Your task to perform on an android device: search for starred emails in the gmail app Image 0: 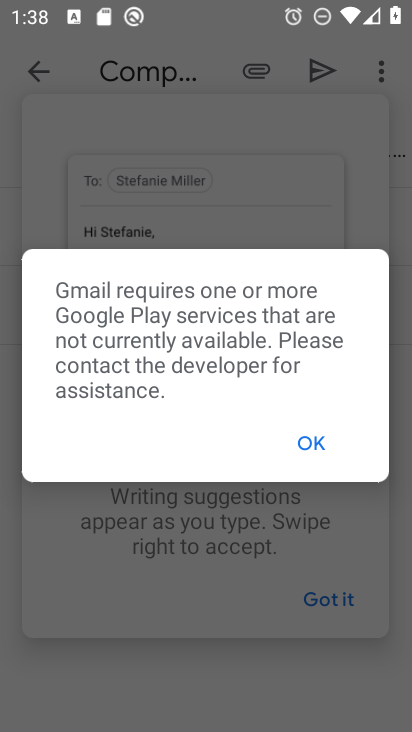
Step 0: press home button
Your task to perform on an android device: search for starred emails in the gmail app Image 1: 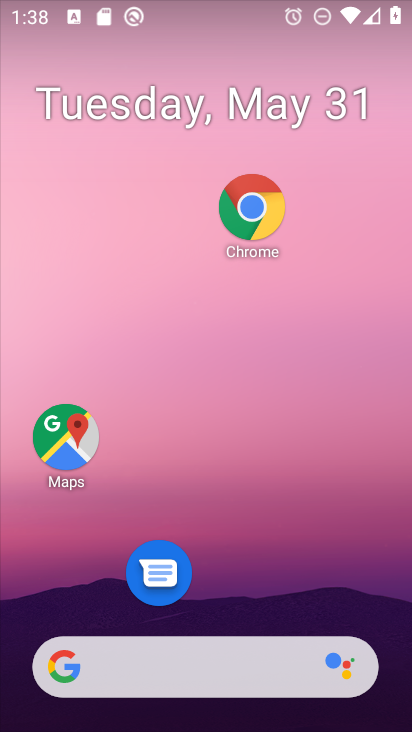
Step 1: drag from (249, 603) to (279, 134)
Your task to perform on an android device: search for starred emails in the gmail app Image 2: 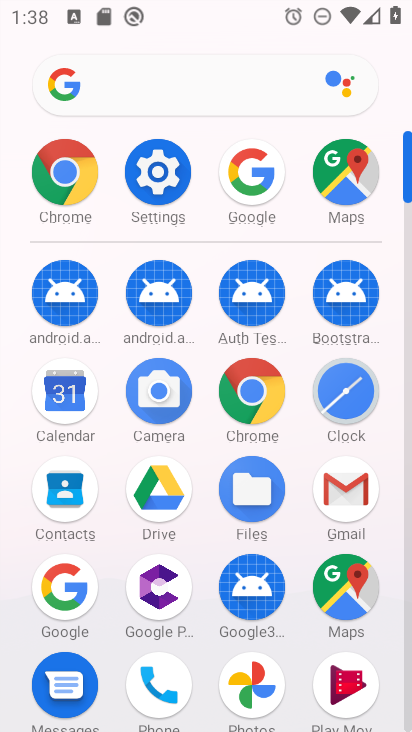
Step 2: click (348, 490)
Your task to perform on an android device: search for starred emails in the gmail app Image 3: 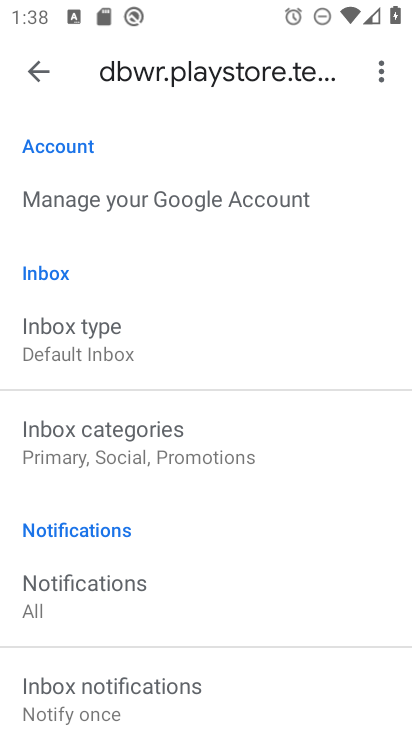
Step 3: click (44, 69)
Your task to perform on an android device: search for starred emails in the gmail app Image 4: 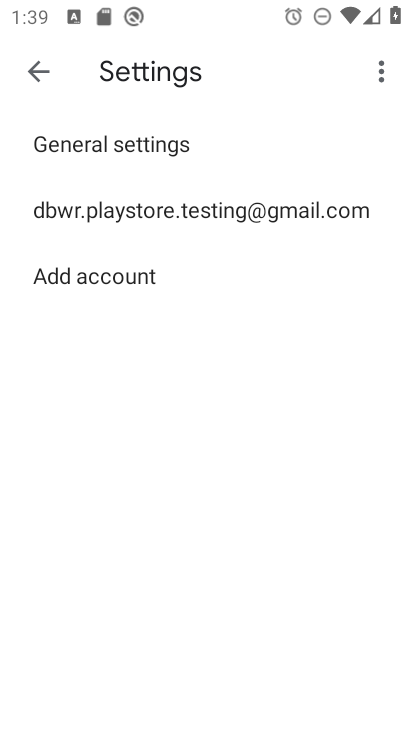
Step 4: click (44, 69)
Your task to perform on an android device: search for starred emails in the gmail app Image 5: 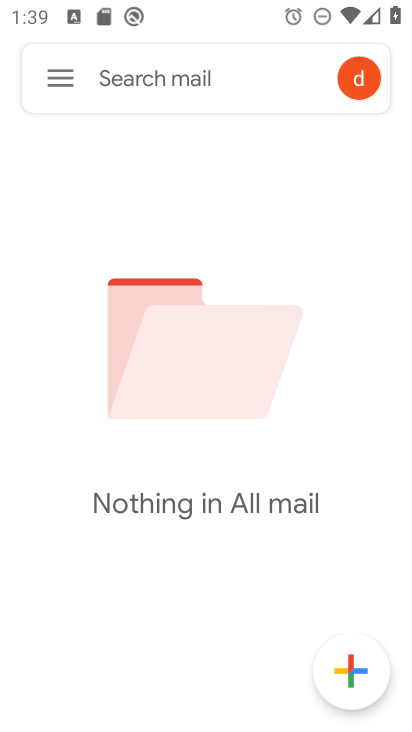
Step 5: click (53, 77)
Your task to perform on an android device: search for starred emails in the gmail app Image 6: 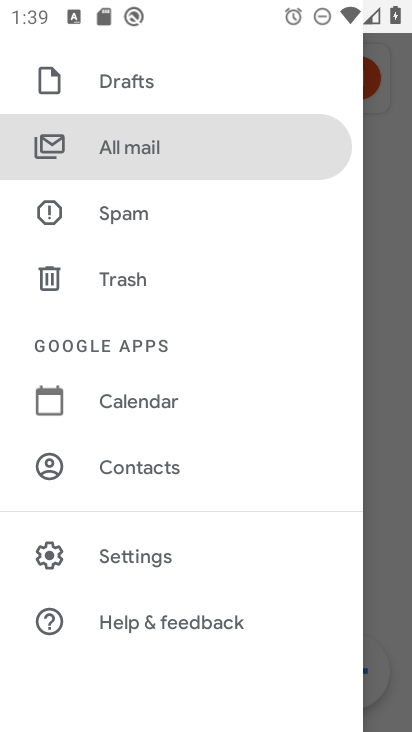
Step 6: drag from (178, 289) to (156, 576)
Your task to perform on an android device: search for starred emails in the gmail app Image 7: 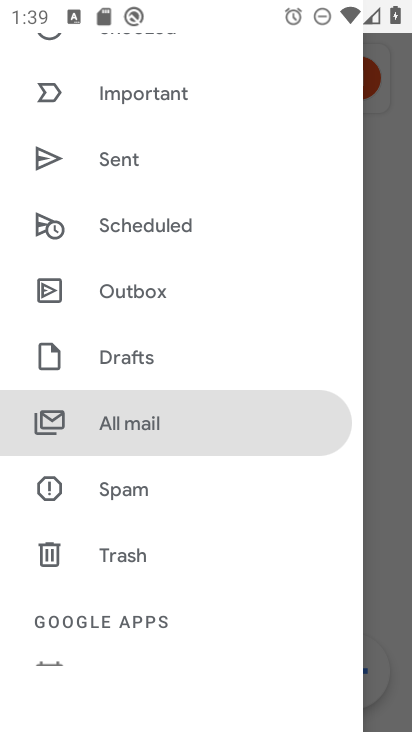
Step 7: drag from (164, 216) to (179, 497)
Your task to perform on an android device: search for starred emails in the gmail app Image 8: 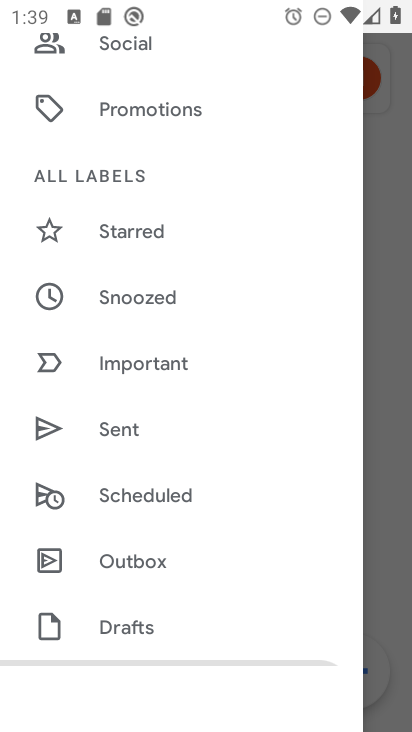
Step 8: click (172, 235)
Your task to perform on an android device: search for starred emails in the gmail app Image 9: 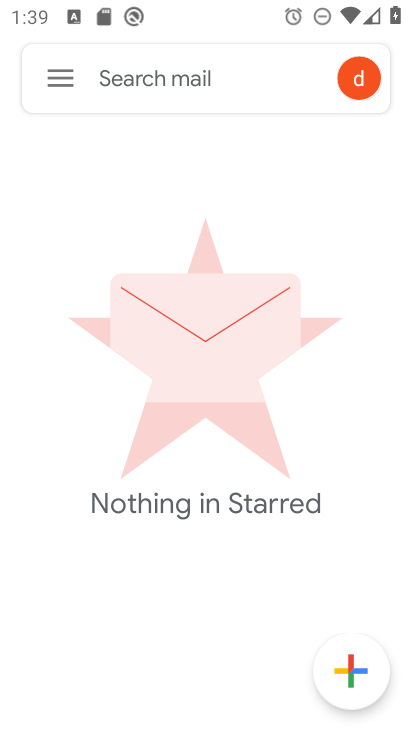
Step 9: task complete